Your task to perform on an android device: See recent photos Image 0: 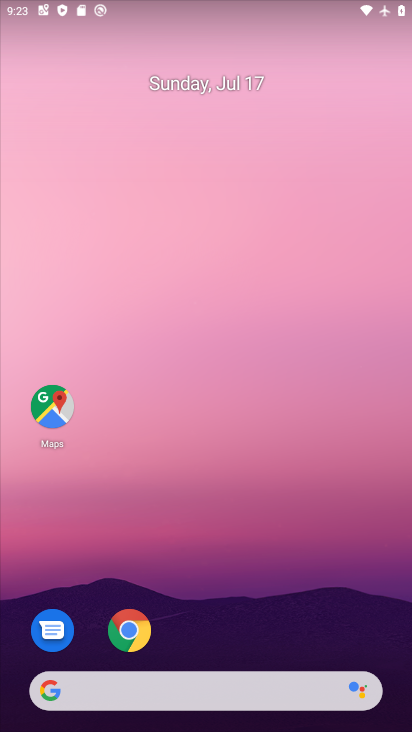
Step 0: drag from (273, 655) to (281, 174)
Your task to perform on an android device: See recent photos Image 1: 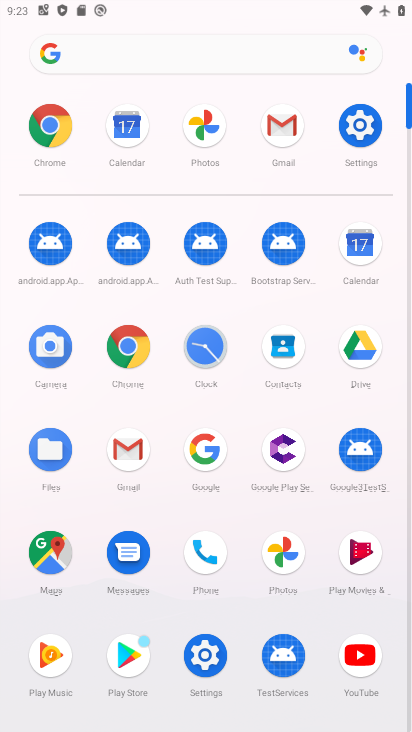
Step 1: click (185, 143)
Your task to perform on an android device: See recent photos Image 2: 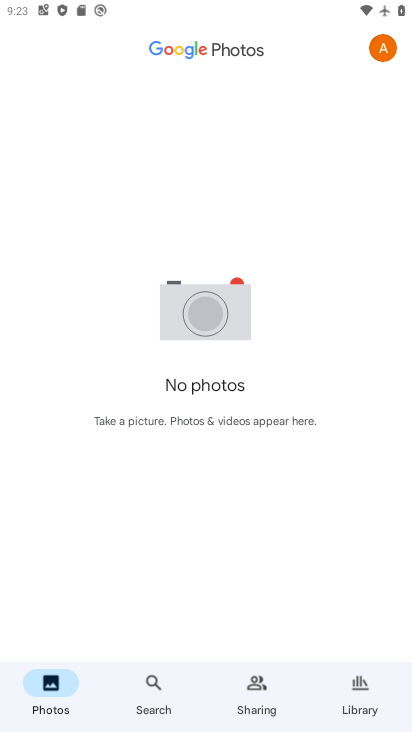
Step 2: task complete